Your task to perform on an android device: Show me the top rated dinnerware on Crate & Barrel Image 0: 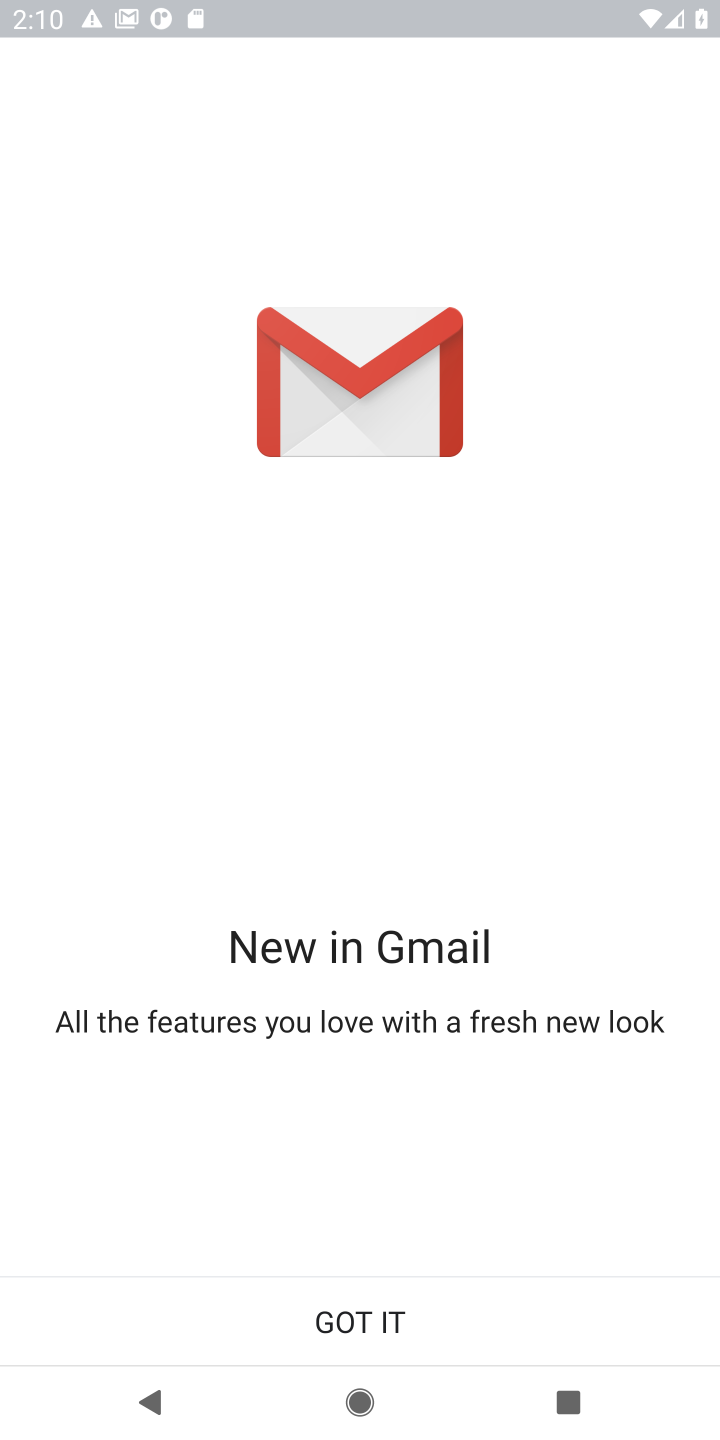
Step 0: press home button
Your task to perform on an android device: Show me the top rated dinnerware on Crate & Barrel Image 1: 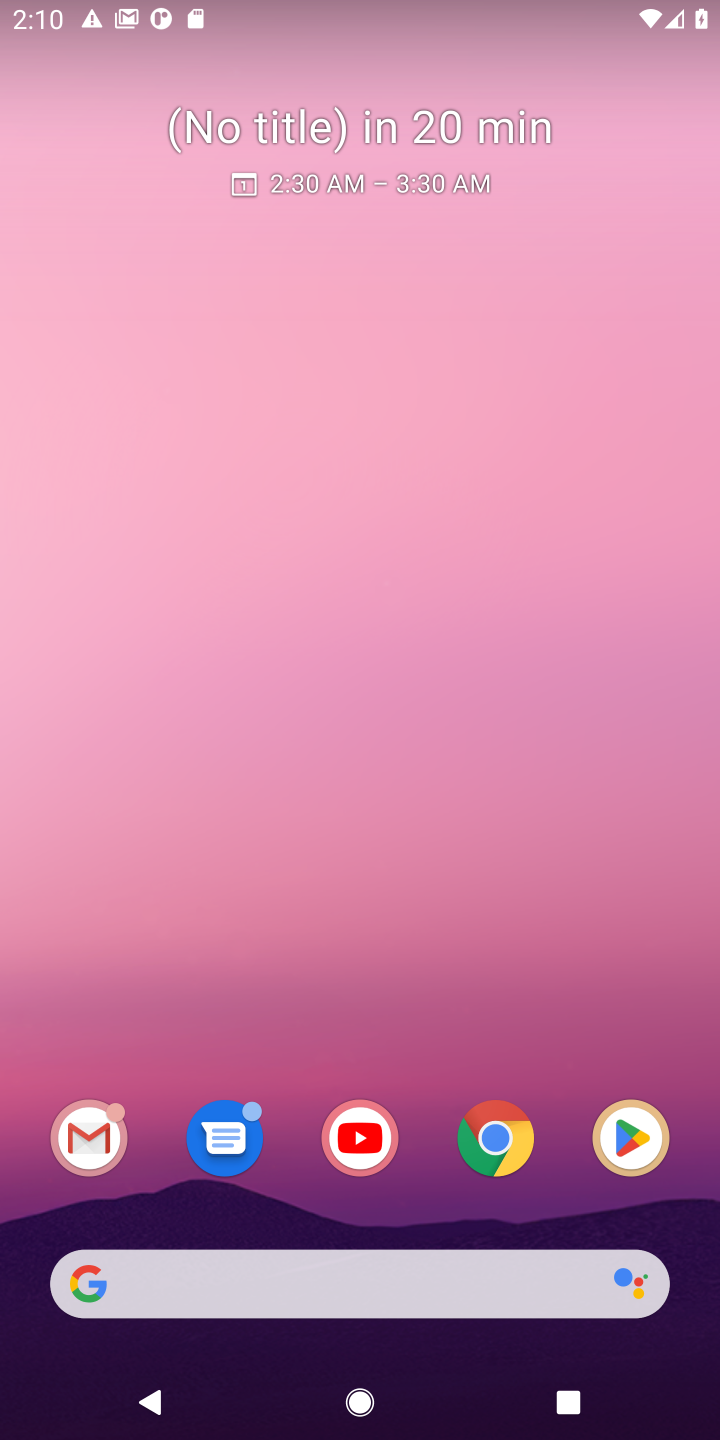
Step 1: drag from (615, 93) to (625, 0)
Your task to perform on an android device: Show me the top rated dinnerware on Crate & Barrel Image 2: 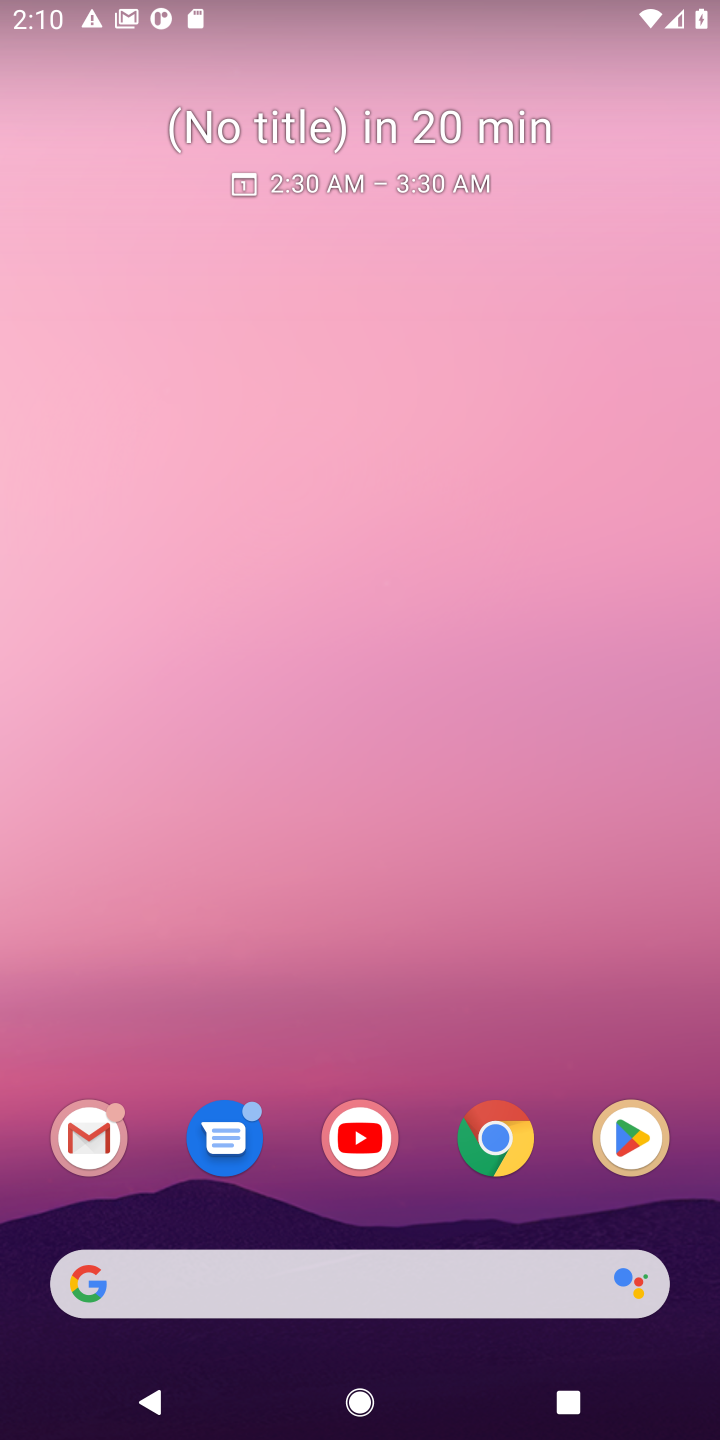
Step 2: drag from (422, 1193) to (437, 251)
Your task to perform on an android device: Show me the top rated dinnerware on Crate & Barrel Image 3: 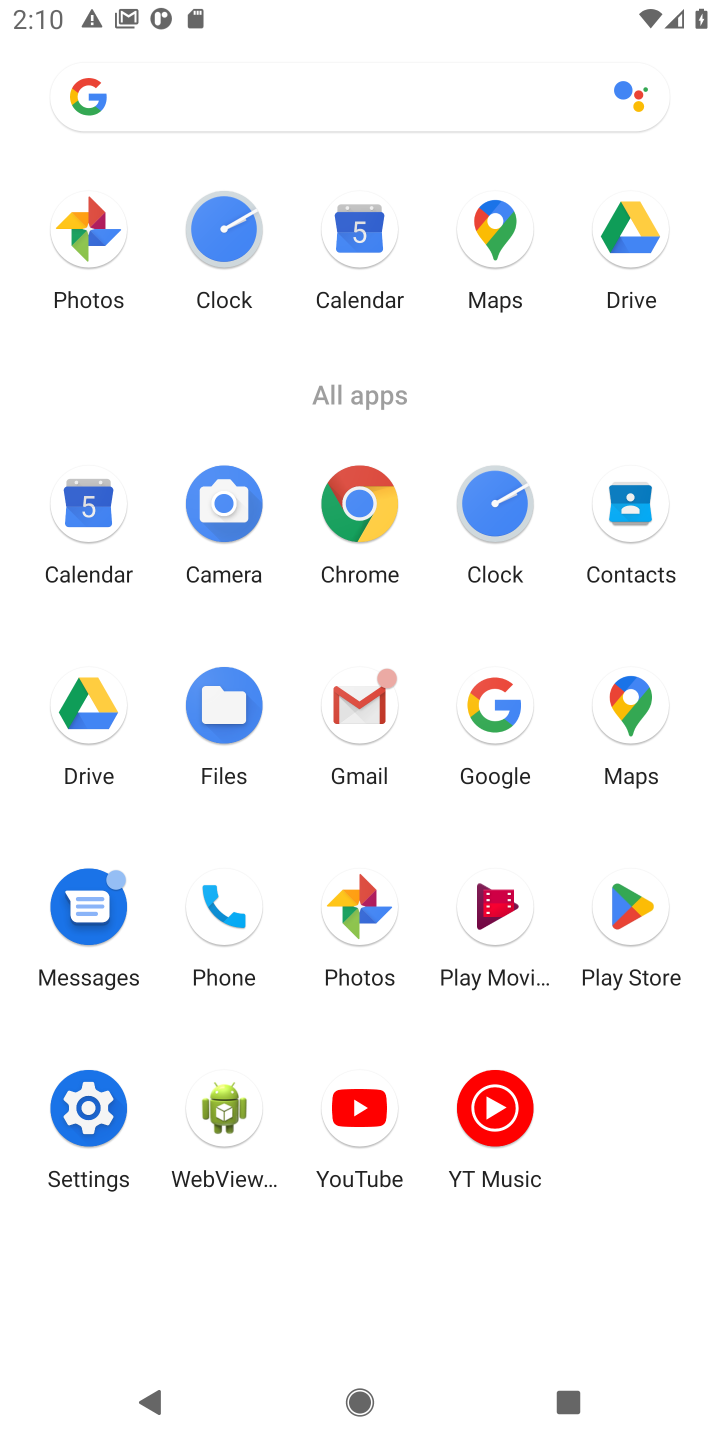
Step 3: click (374, 500)
Your task to perform on an android device: Show me the top rated dinnerware on Crate & Barrel Image 4: 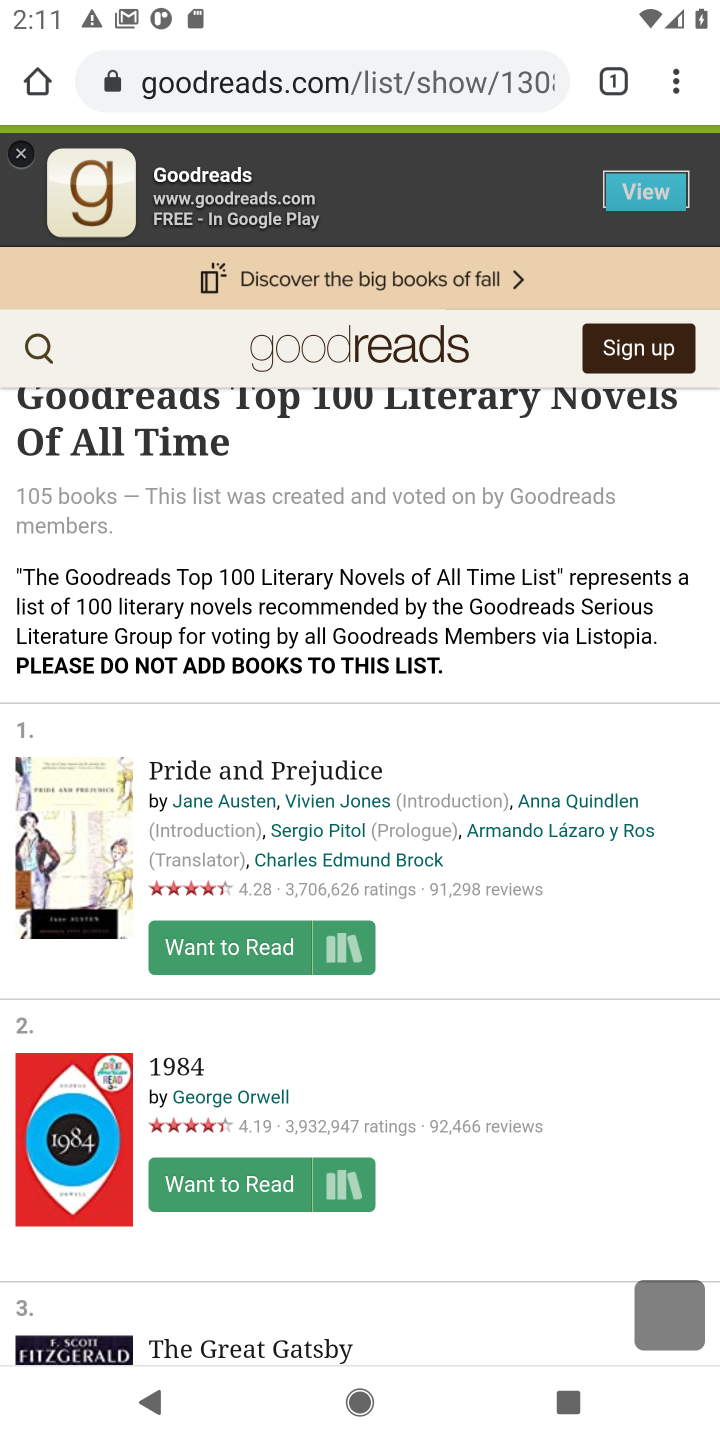
Step 4: click (447, 75)
Your task to perform on an android device: Show me the top rated dinnerware on Crate & Barrel Image 5: 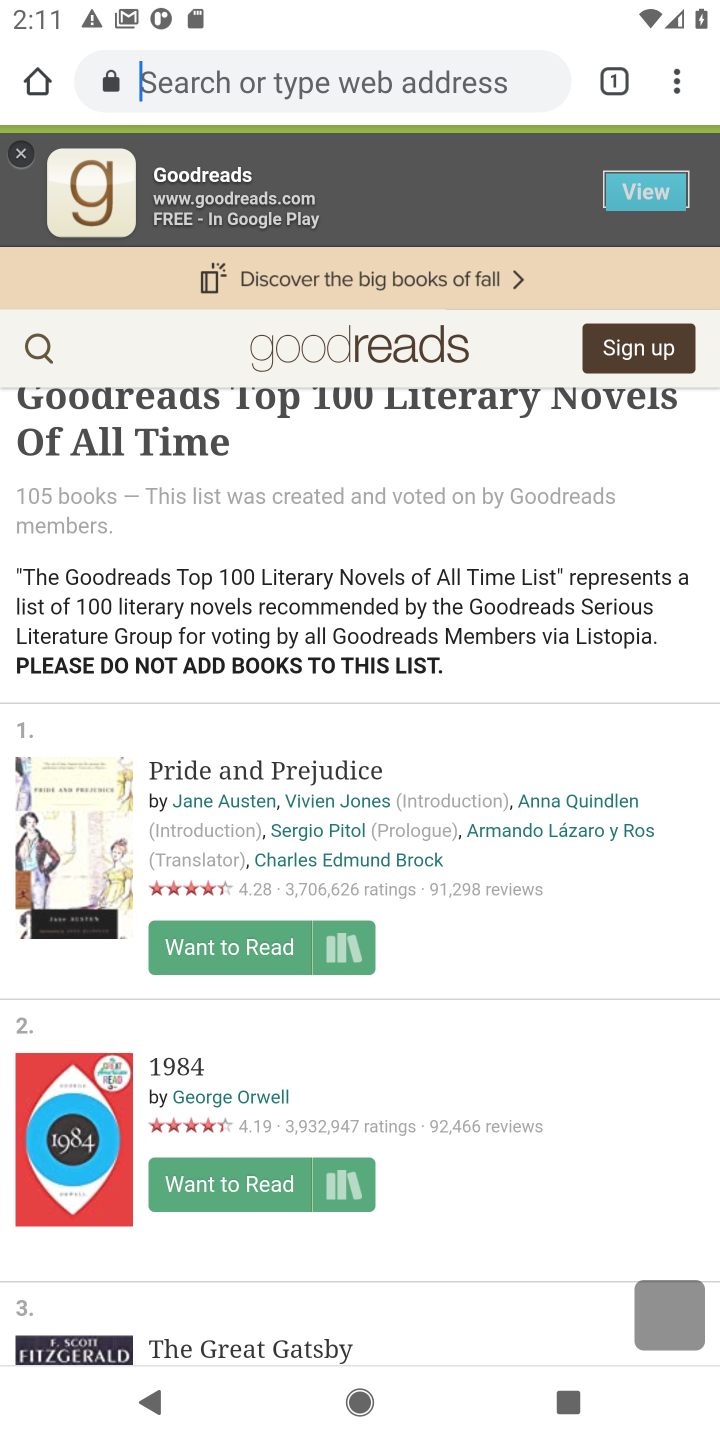
Step 5: click (404, 79)
Your task to perform on an android device: Show me the top rated dinnerware on Crate & Barrel Image 6: 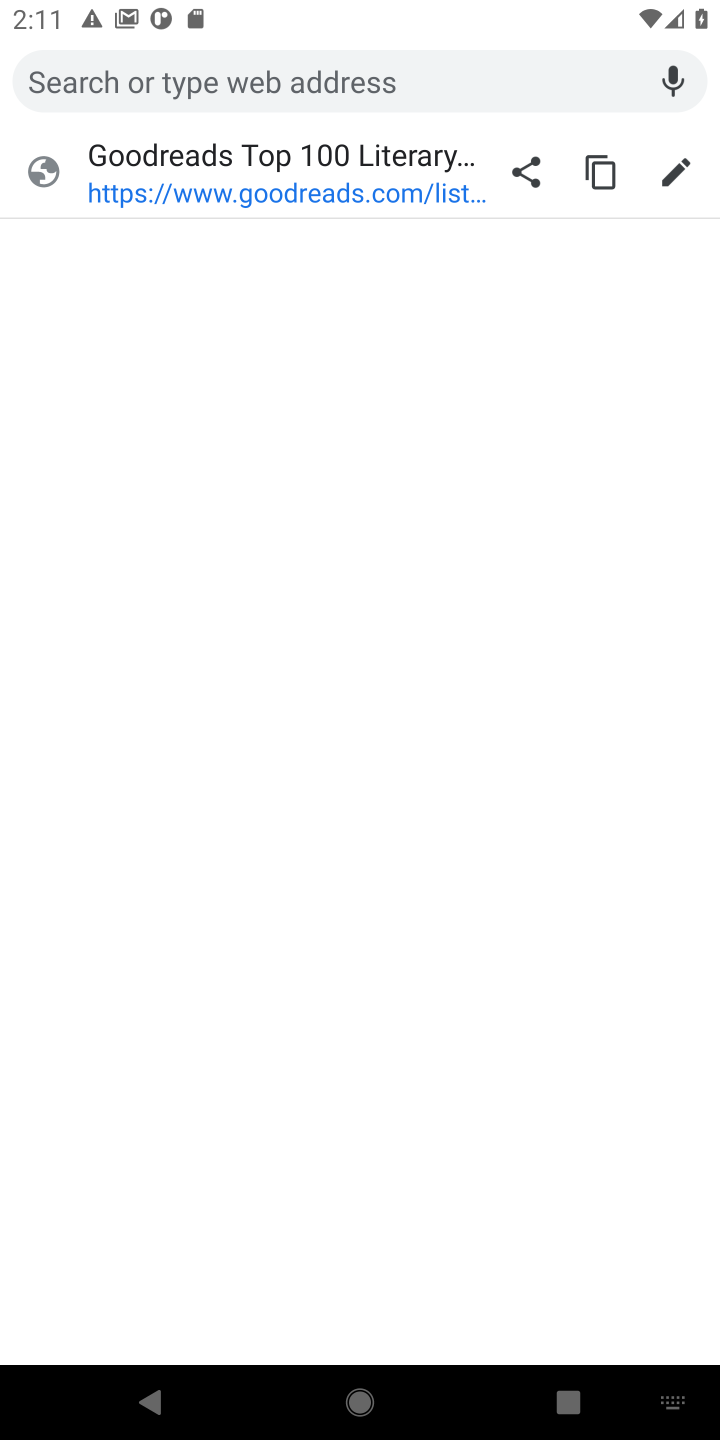
Step 6: click (421, 70)
Your task to perform on an android device: Show me the top rated dinnerware on Crate & Barrel Image 7: 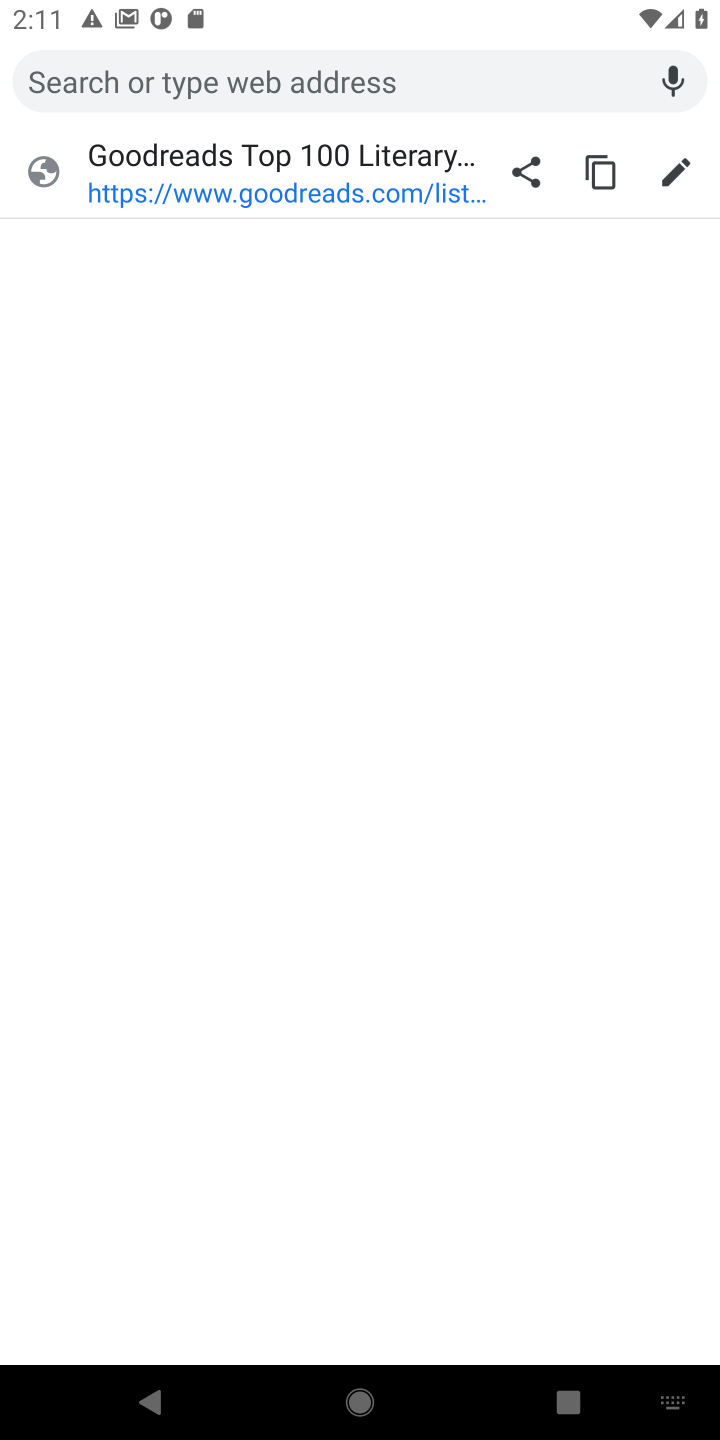
Step 7: type "top rated dinnerware on Crate & Barrel"
Your task to perform on an android device: Show me the top rated dinnerware on Crate & Barrel Image 8: 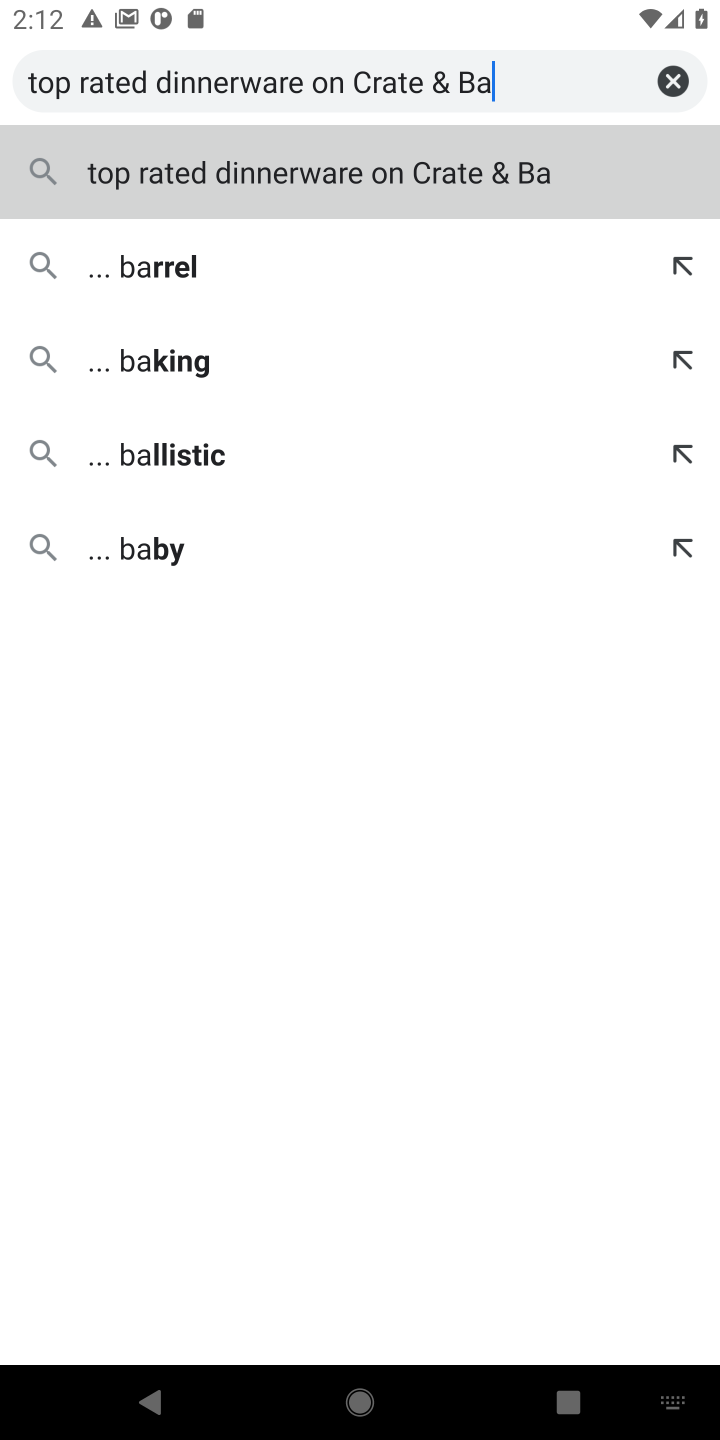
Step 8: type "rrel"
Your task to perform on an android device: Show me the top rated dinnerware on Crate & Barrel Image 9: 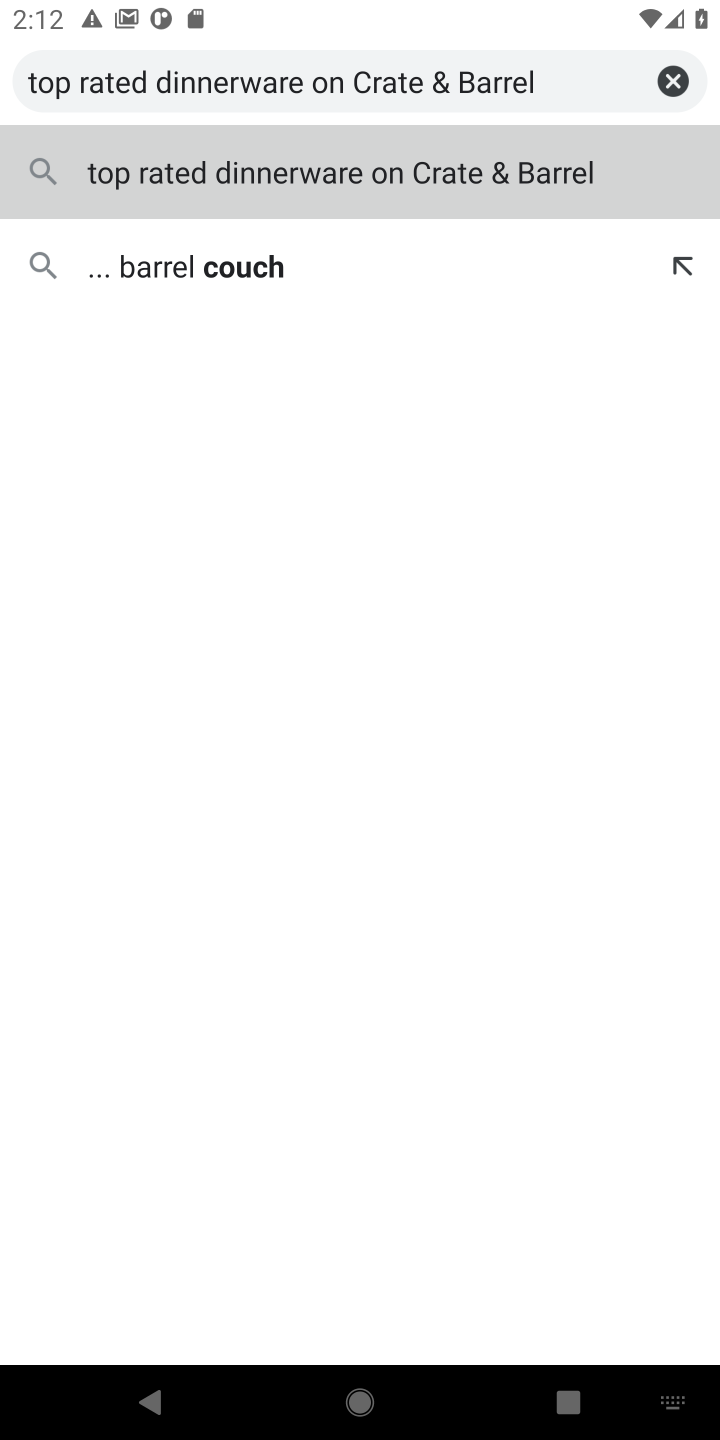
Step 9: press enter
Your task to perform on an android device: Show me the top rated dinnerware on Crate & Barrel Image 10: 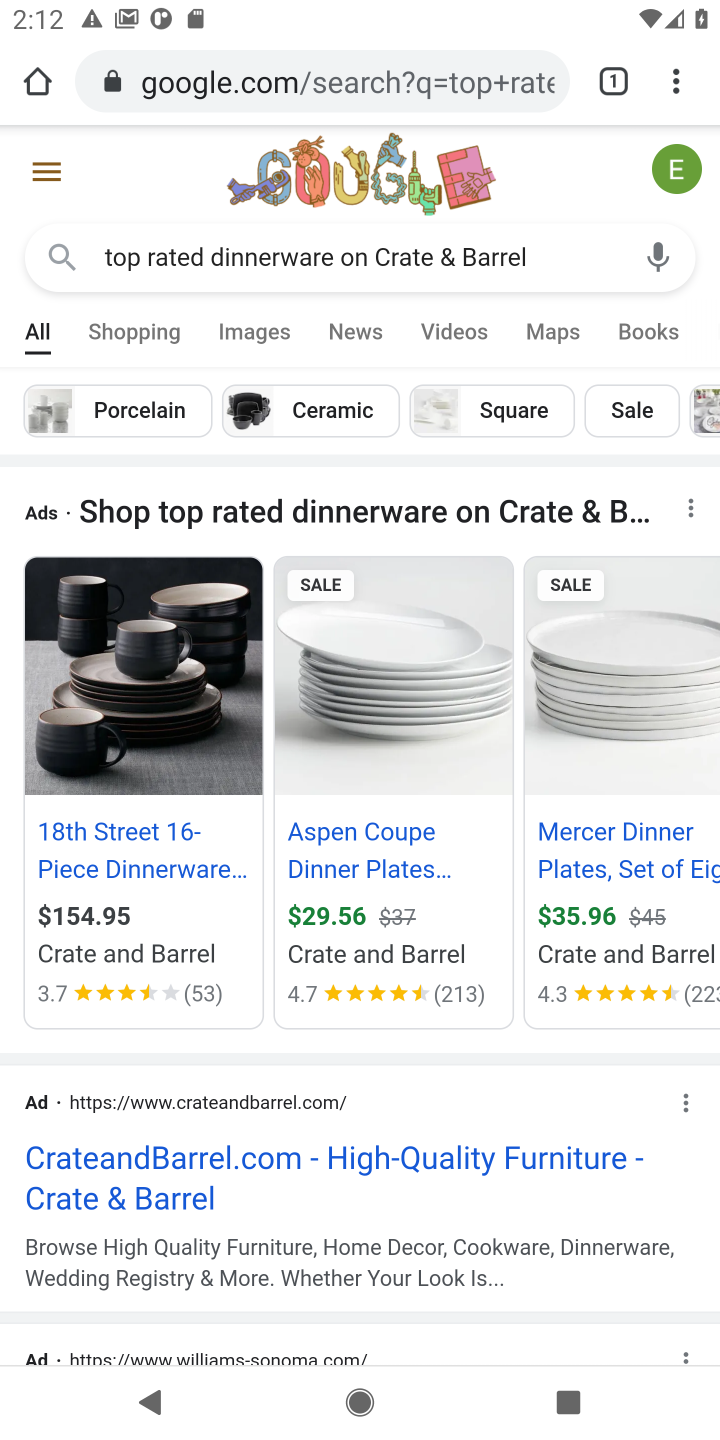
Step 10: drag from (387, 1243) to (612, 119)
Your task to perform on an android device: Show me the top rated dinnerware on Crate & Barrel Image 11: 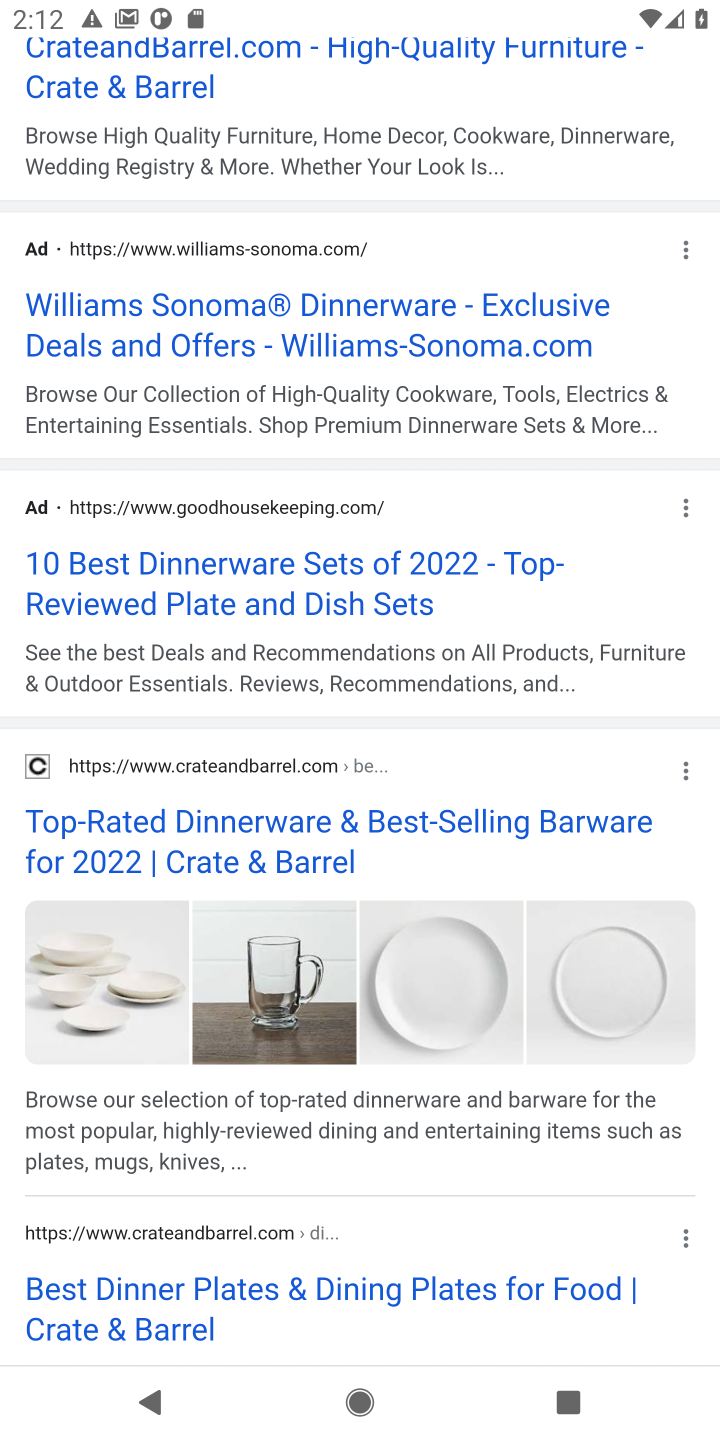
Step 11: drag from (400, 1243) to (528, 376)
Your task to perform on an android device: Show me the top rated dinnerware on Crate & Barrel Image 12: 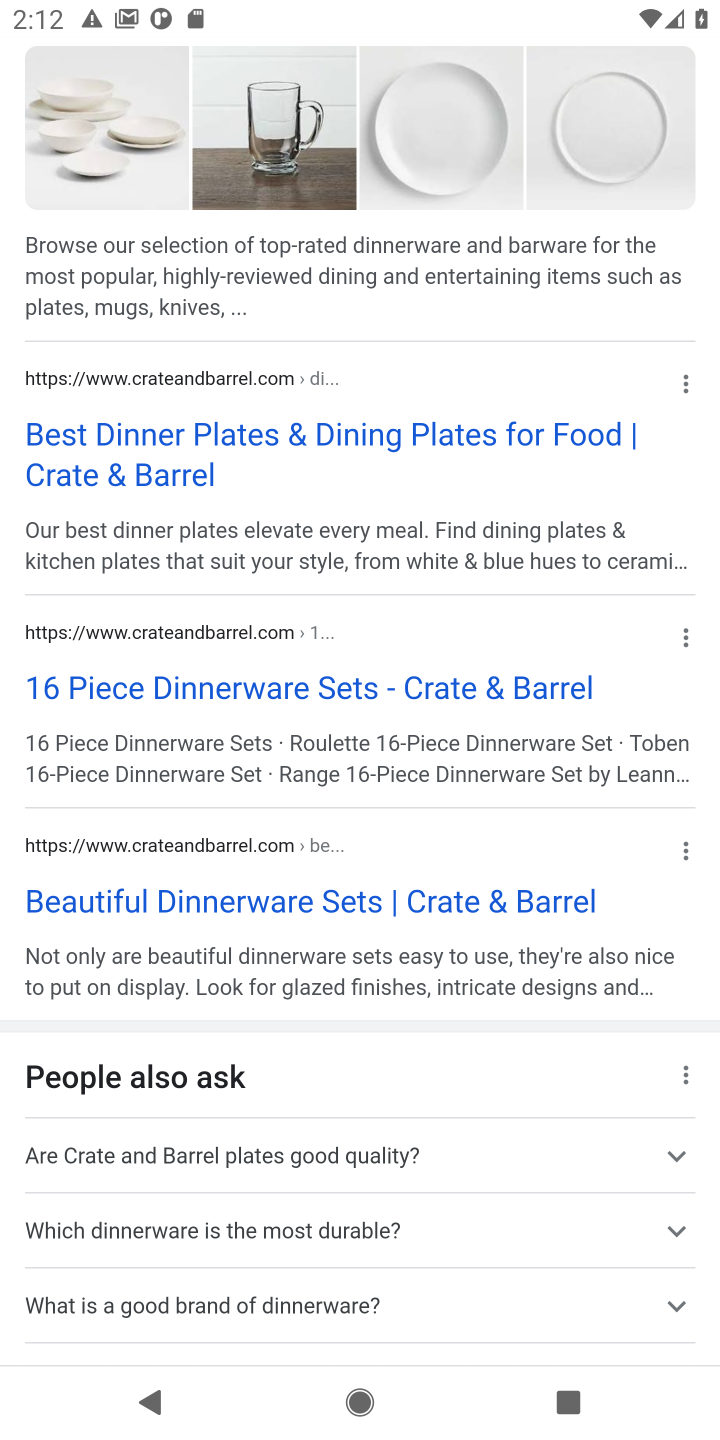
Step 12: drag from (300, 482) to (356, 1004)
Your task to perform on an android device: Show me the top rated dinnerware on Crate & Barrel Image 13: 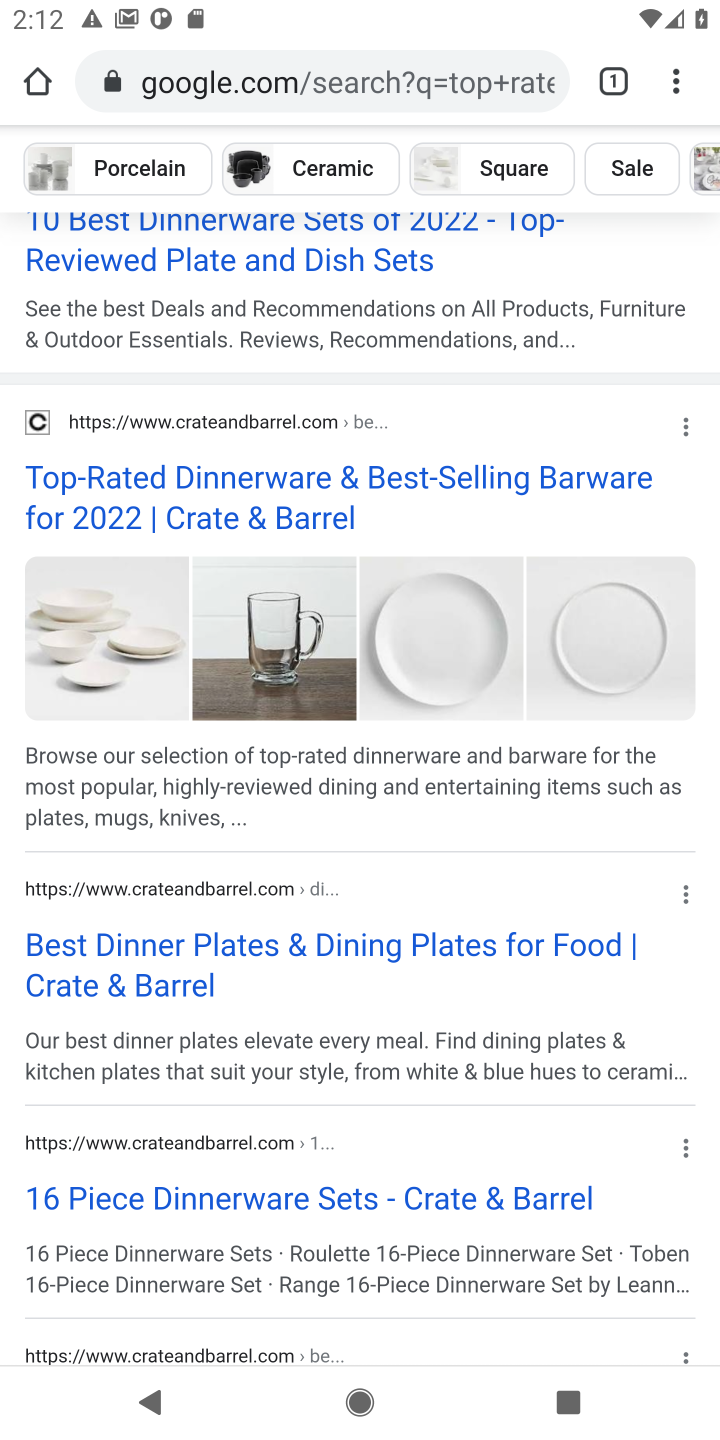
Step 13: click (274, 485)
Your task to perform on an android device: Show me the top rated dinnerware on Crate & Barrel Image 14: 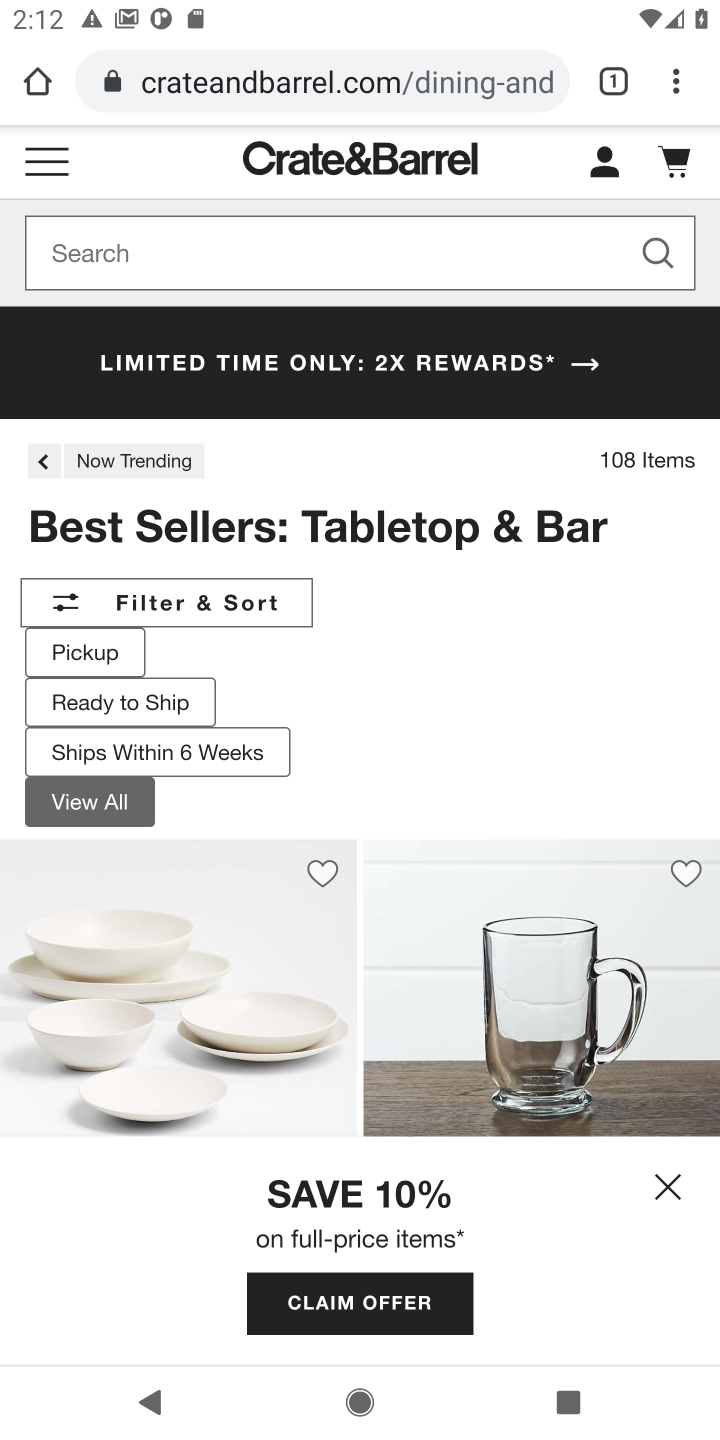
Step 14: task complete